Your task to perform on an android device: snooze an email in the gmail app Image 0: 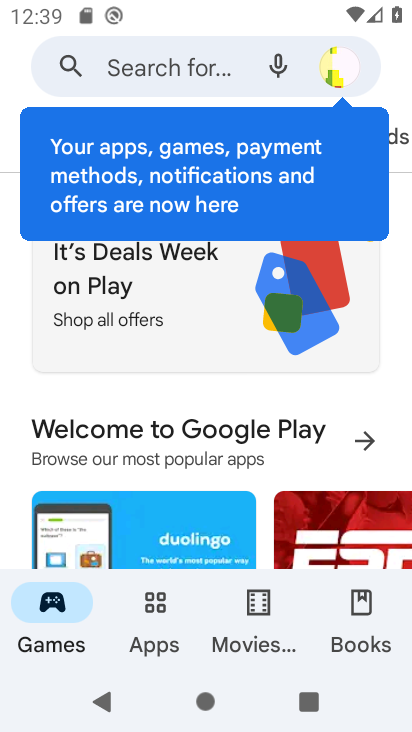
Step 0: press home button
Your task to perform on an android device: snooze an email in the gmail app Image 1: 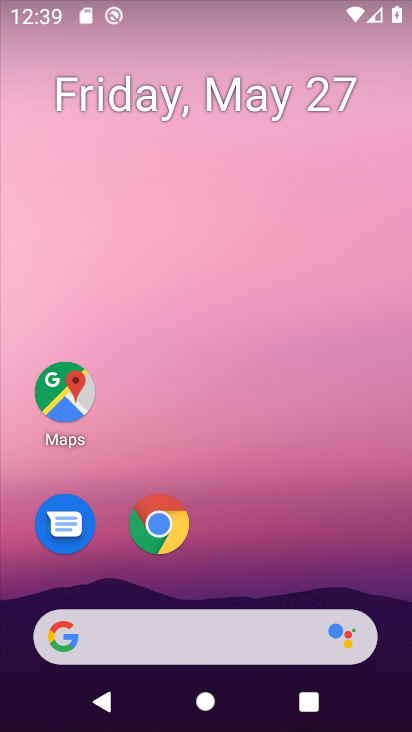
Step 1: drag from (257, 545) to (229, 2)
Your task to perform on an android device: snooze an email in the gmail app Image 2: 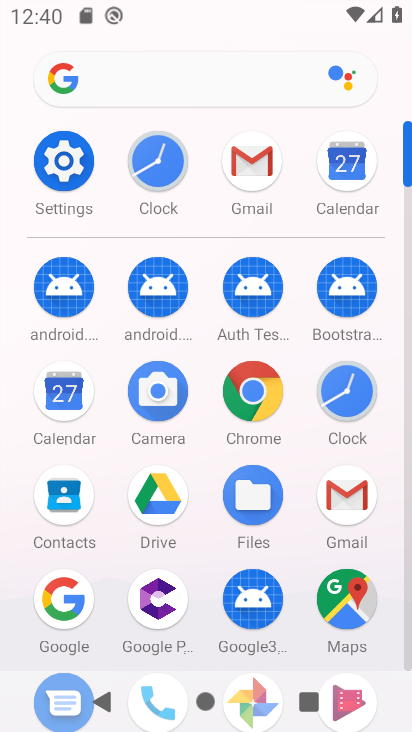
Step 2: click (247, 159)
Your task to perform on an android device: snooze an email in the gmail app Image 3: 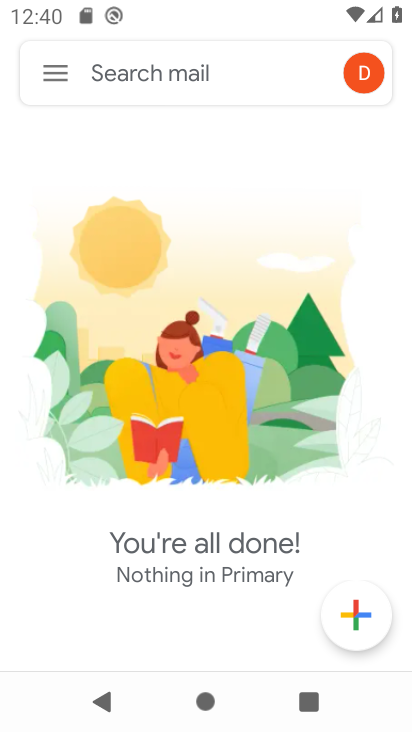
Step 3: click (58, 67)
Your task to perform on an android device: snooze an email in the gmail app Image 4: 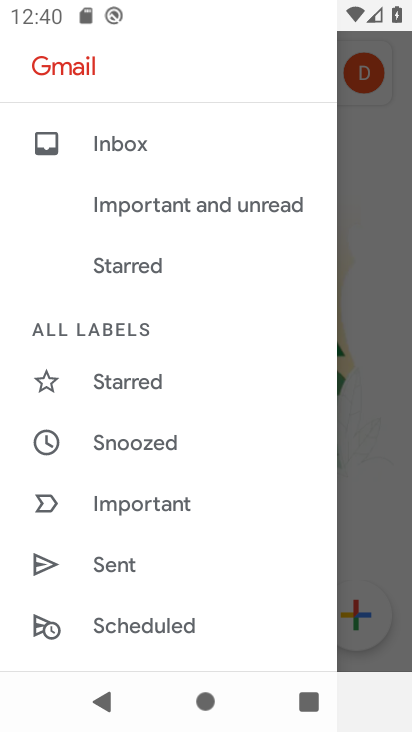
Step 4: drag from (166, 565) to (196, 167)
Your task to perform on an android device: snooze an email in the gmail app Image 5: 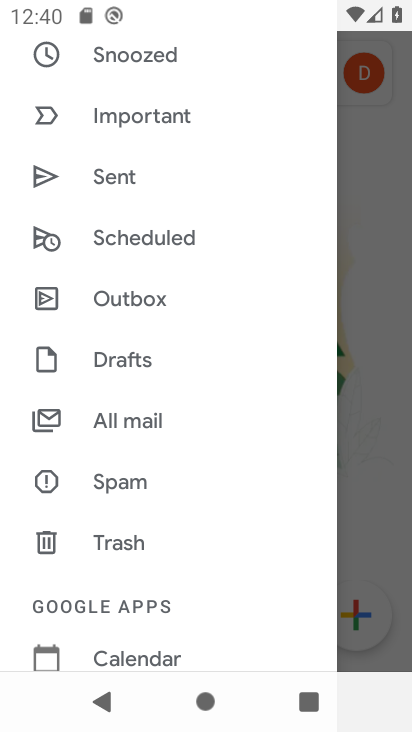
Step 5: click (145, 422)
Your task to perform on an android device: snooze an email in the gmail app Image 6: 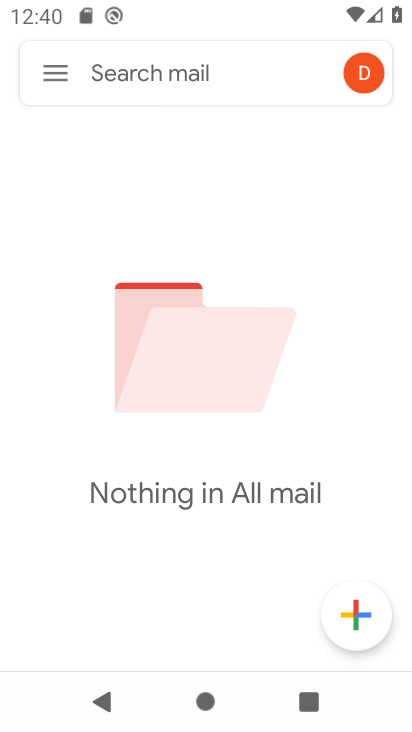
Step 6: task complete